Your task to perform on an android device: check data usage Image 0: 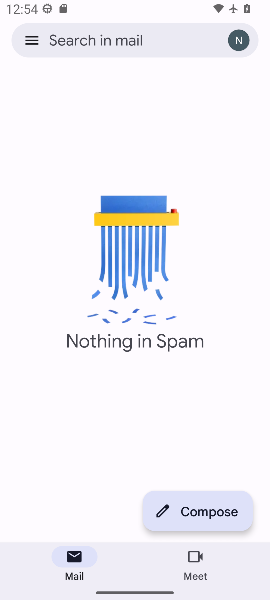
Step 0: press home button
Your task to perform on an android device: check data usage Image 1: 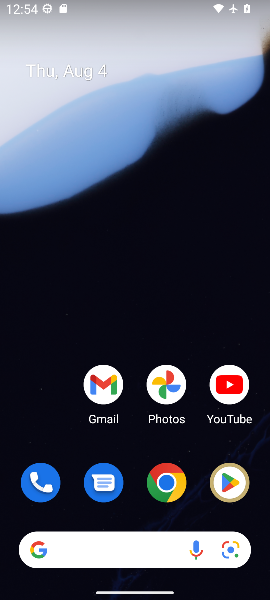
Step 1: drag from (131, 451) to (133, 179)
Your task to perform on an android device: check data usage Image 2: 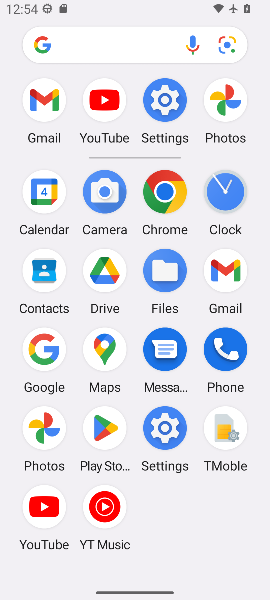
Step 2: click (158, 102)
Your task to perform on an android device: check data usage Image 3: 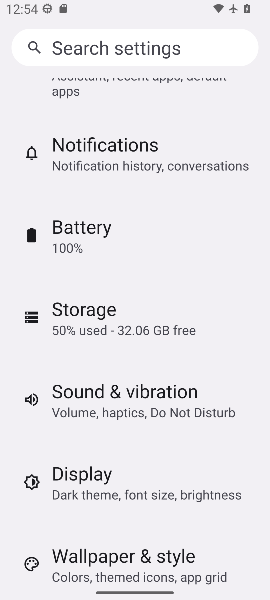
Step 3: drag from (150, 201) to (164, 441)
Your task to perform on an android device: check data usage Image 4: 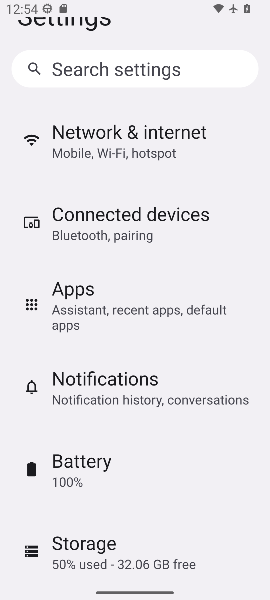
Step 4: click (119, 144)
Your task to perform on an android device: check data usage Image 5: 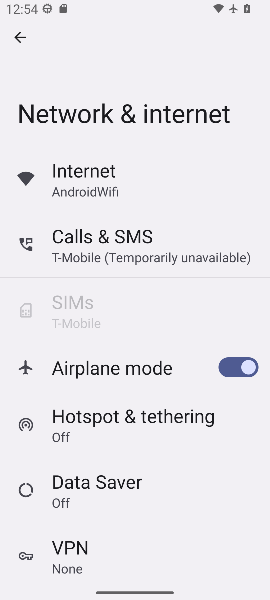
Step 5: click (118, 308)
Your task to perform on an android device: check data usage Image 6: 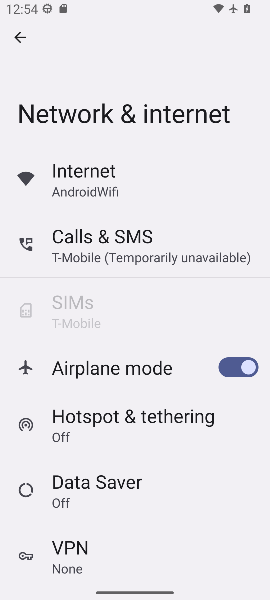
Step 6: task complete